Your task to perform on an android device: Open Chrome and go to settings Image 0: 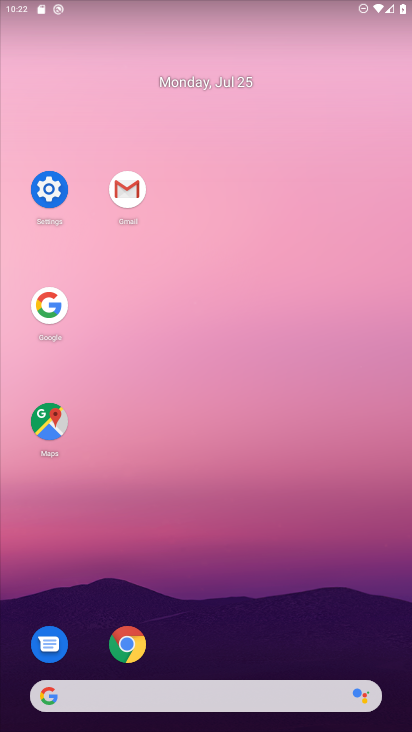
Step 0: click (134, 649)
Your task to perform on an android device: Open Chrome and go to settings Image 1: 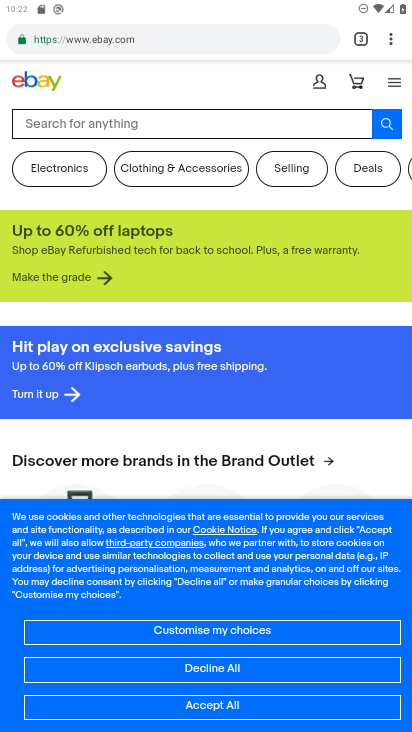
Step 1: click (385, 40)
Your task to perform on an android device: Open Chrome and go to settings Image 2: 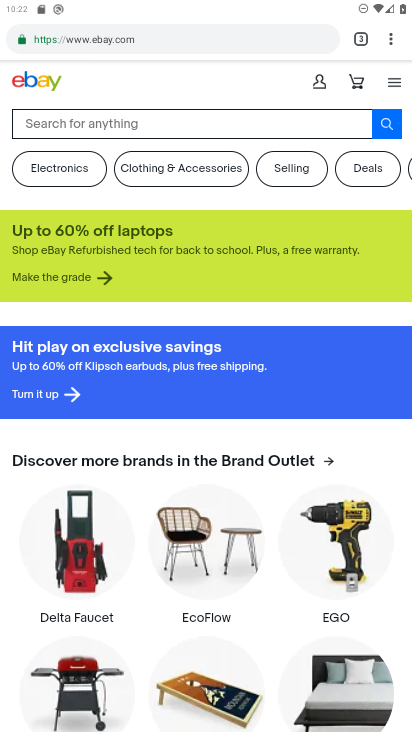
Step 2: click (382, 43)
Your task to perform on an android device: Open Chrome and go to settings Image 3: 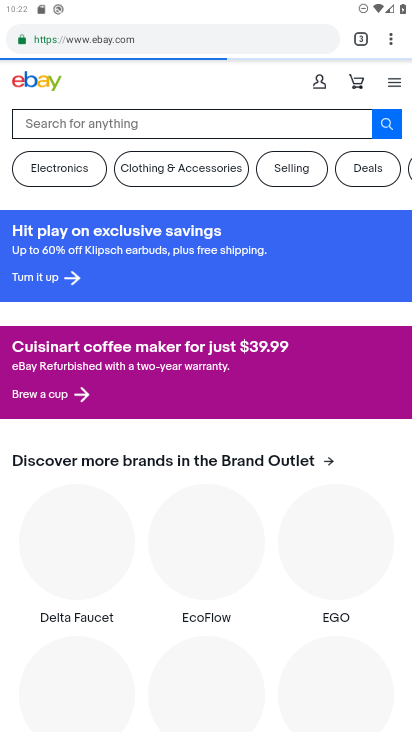
Step 3: click (389, 32)
Your task to perform on an android device: Open Chrome and go to settings Image 4: 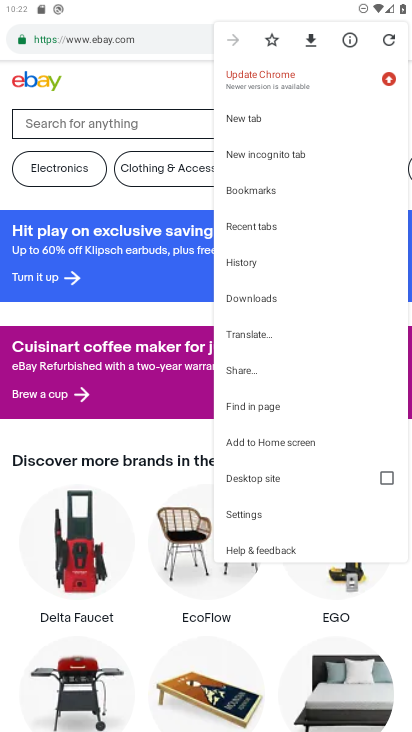
Step 4: click (251, 509)
Your task to perform on an android device: Open Chrome and go to settings Image 5: 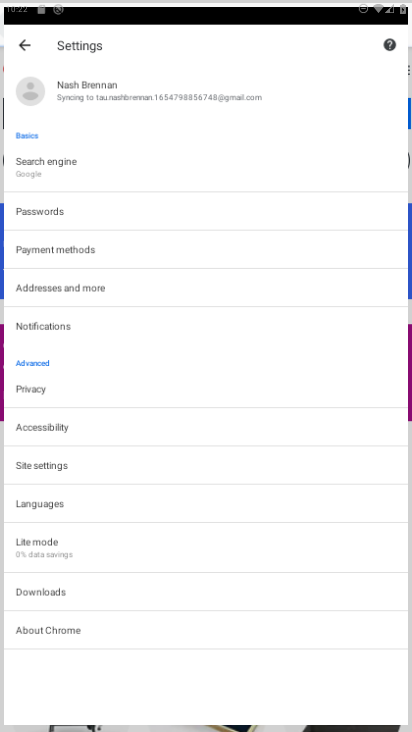
Step 5: task complete